Your task to perform on an android device: Check the weather Image 0: 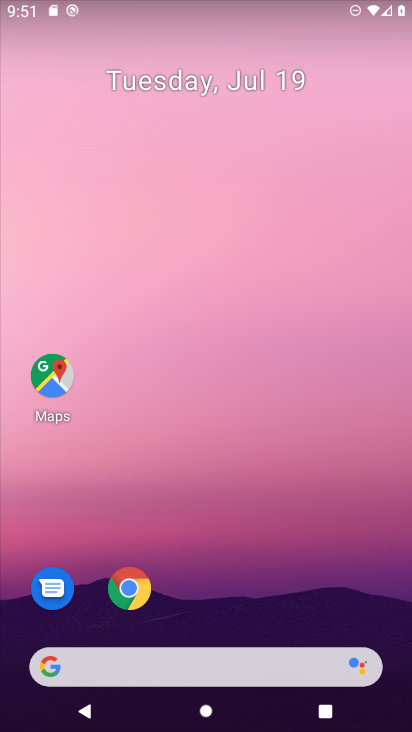
Step 0: drag from (270, 639) to (195, 184)
Your task to perform on an android device: Check the weather Image 1: 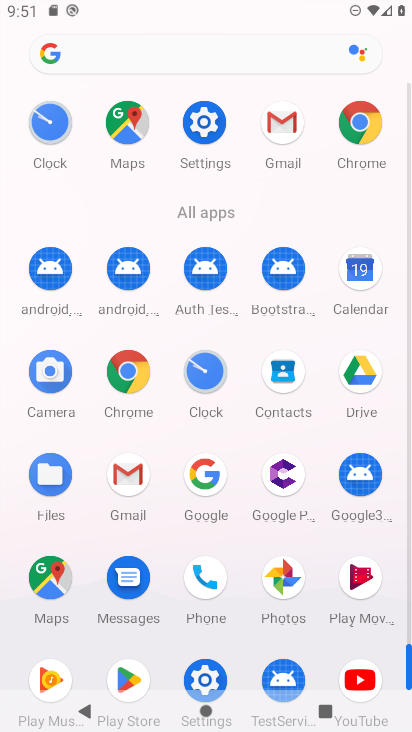
Step 1: click (357, 125)
Your task to perform on an android device: Check the weather Image 2: 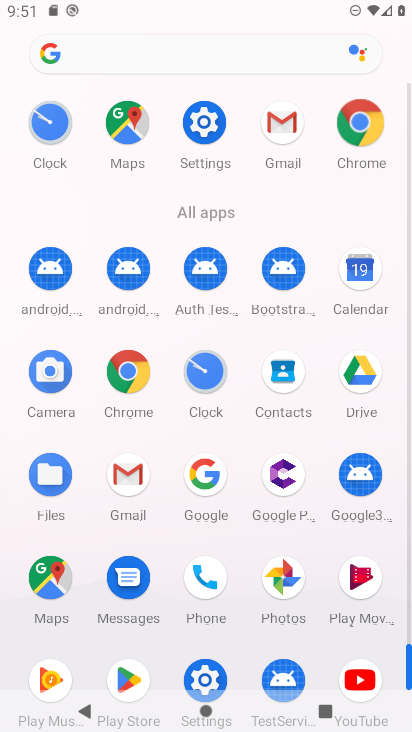
Step 2: click (361, 123)
Your task to perform on an android device: Check the weather Image 3: 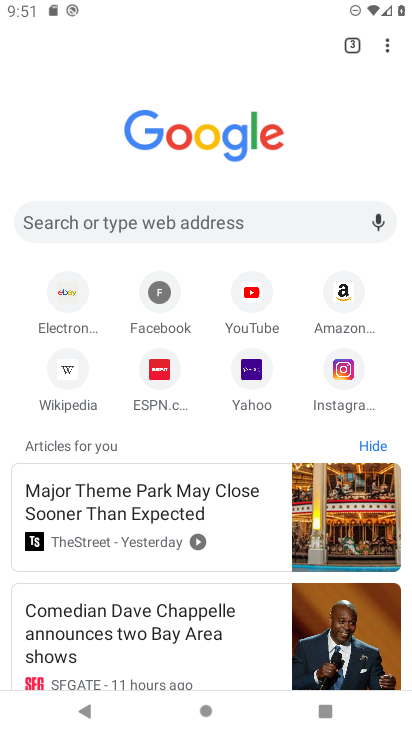
Step 3: click (55, 217)
Your task to perform on an android device: Check the weather Image 4: 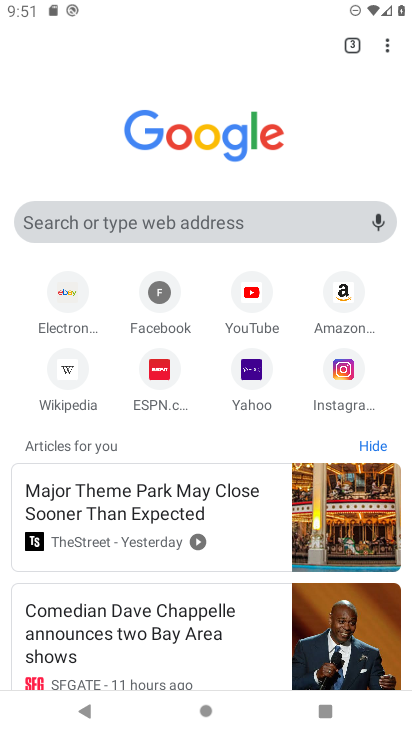
Step 4: click (55, 216)
Your task to perform on an android device: Check the weather Image 5: 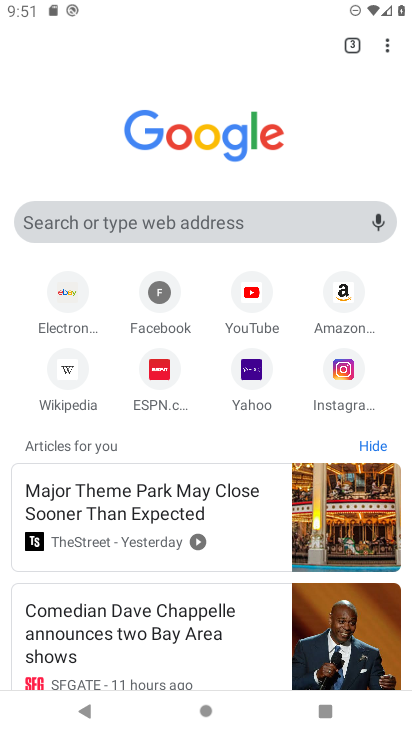
Step 5: click (59, 216)
Your task to perform on an android device: Check the weather Image 6: 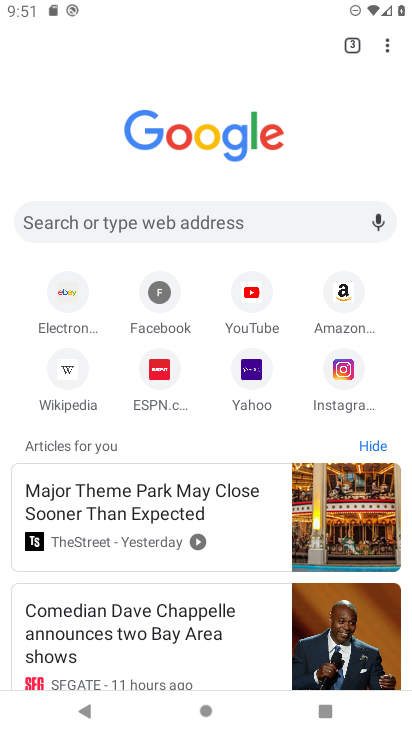
Step 6: click (70, 215)
Your task to perform on an android device: Check the weather Image 7: 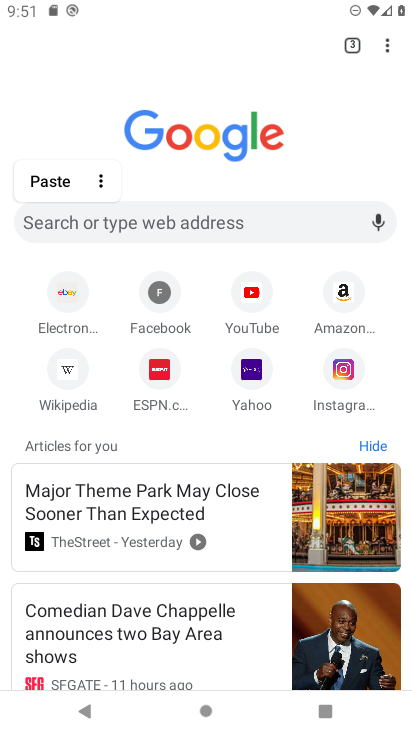
Step 7: type "weather"
Your task to perform on an android device: Check the weather Image 8: 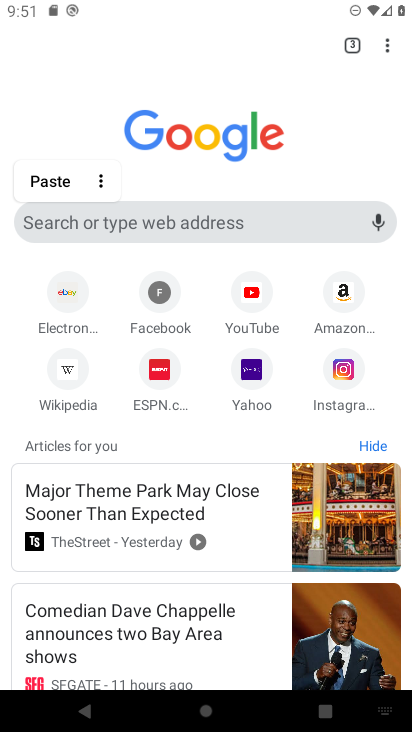
Step 8: click (119, 226)
Your task to perform on an android device: Check the weather Image 9: 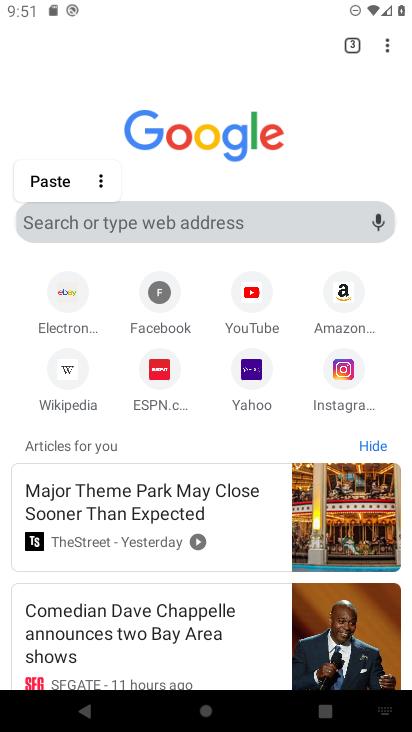
Step 9: click (119, 226)
Your task to perform on an android device: Check the weather Image 10: 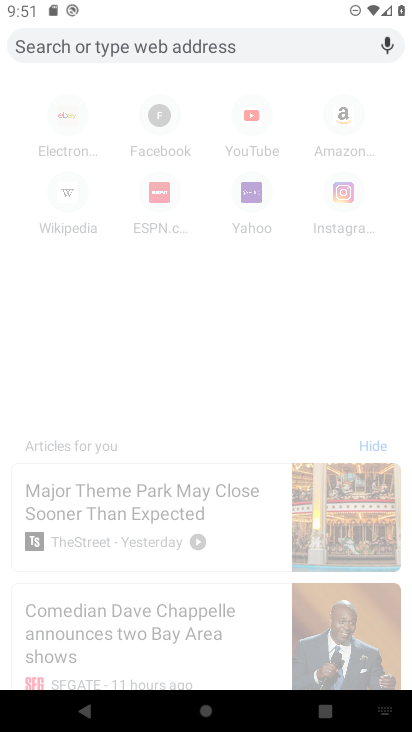
Step 10: type "weather"
Your task to perform on an android device: Check the weather Image 11: 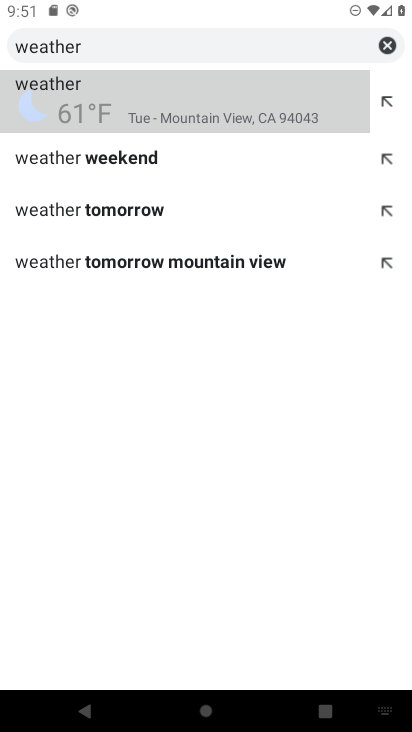
Step 11: click (280, 113)
Your task to perform on an android device: Check the weather Image 12: 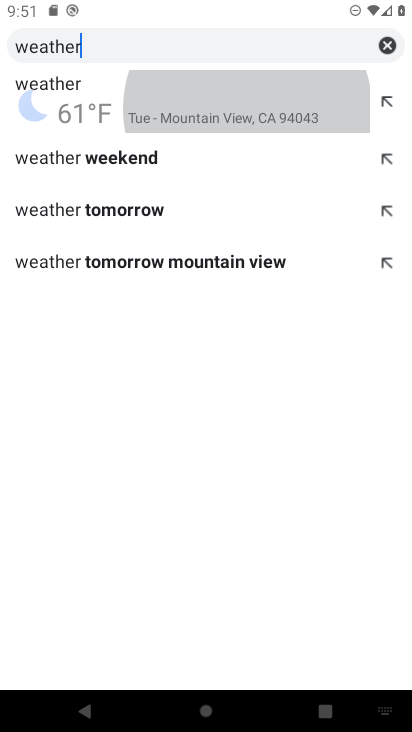
Step 12: click (268, 100)
Your task to perform on an android device: Check the weather Image 13: 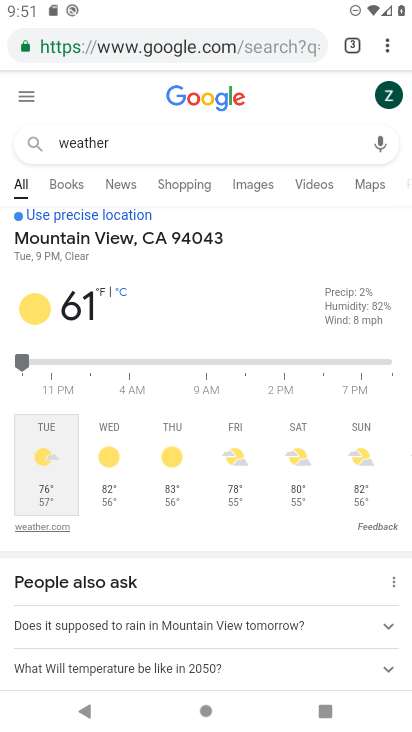
Step 13: task complete